Your task to perform on an android device: read, delete, or share a saved page in the chrome app Image 0: 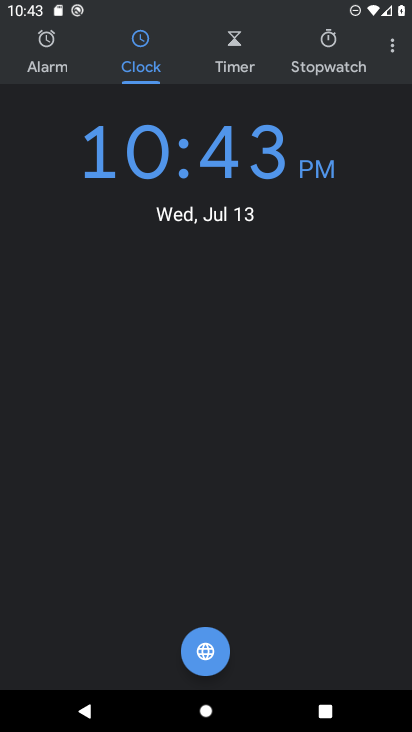
Step 0: press home button
Your task to perform on an android device: read, delete, or share a saved page in the chrome app Image 1: 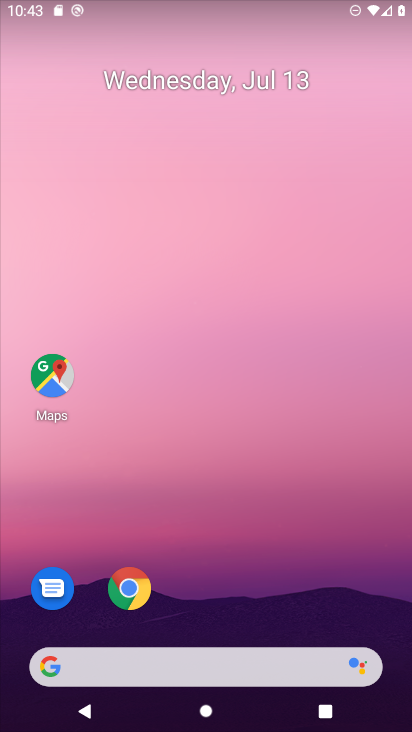
Step 1: click (157, 599)
Your task to perform on an android device: read, delete, or share a saved page in the chrome app Image 2: 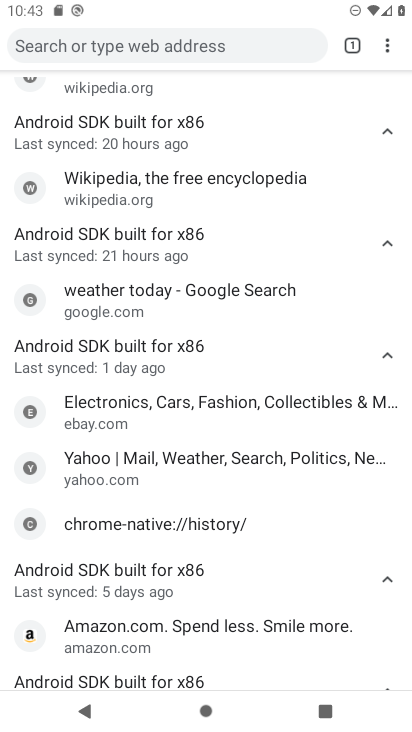
Step 2: click (391, 41)
Your task to perform on an android device: read, delete, or share a saved page in the chrome app Image 3: 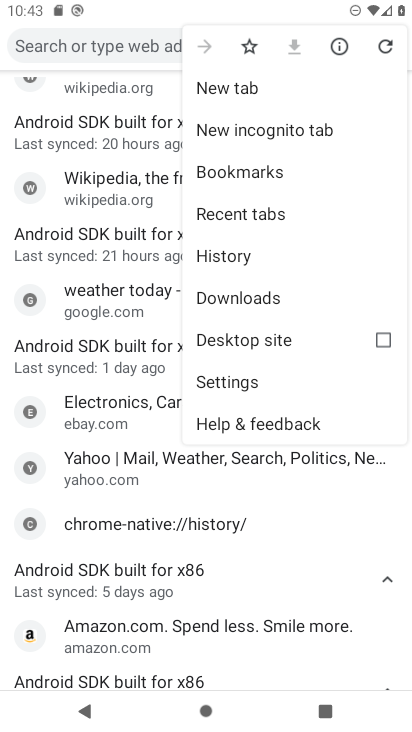
Step 3: click (256, 292)
Your task to perform on an android device: read, delete, or share a saved page in the chrome app Image 4: 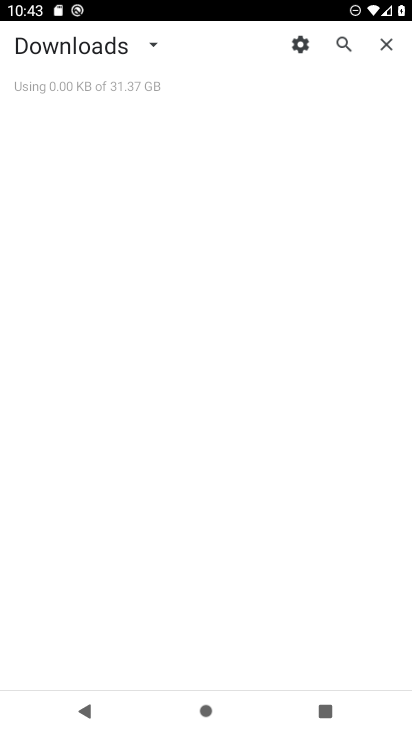
Step 4: task complete